Your task to perform on an android device: manage bookmarks in the chrome app Image 0: 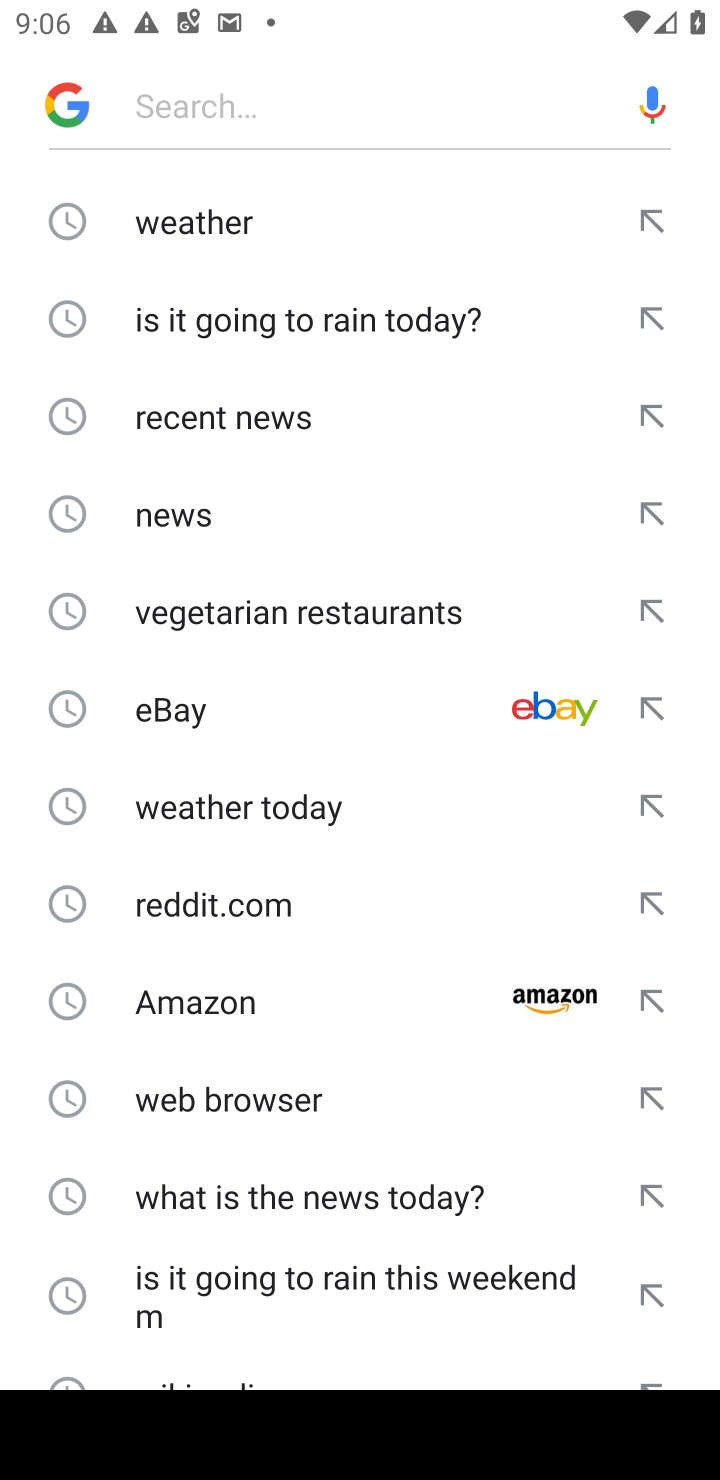
Step 0: press home button
Your task to perform on an android device: manage bookmarks in the chrome app Image 1: 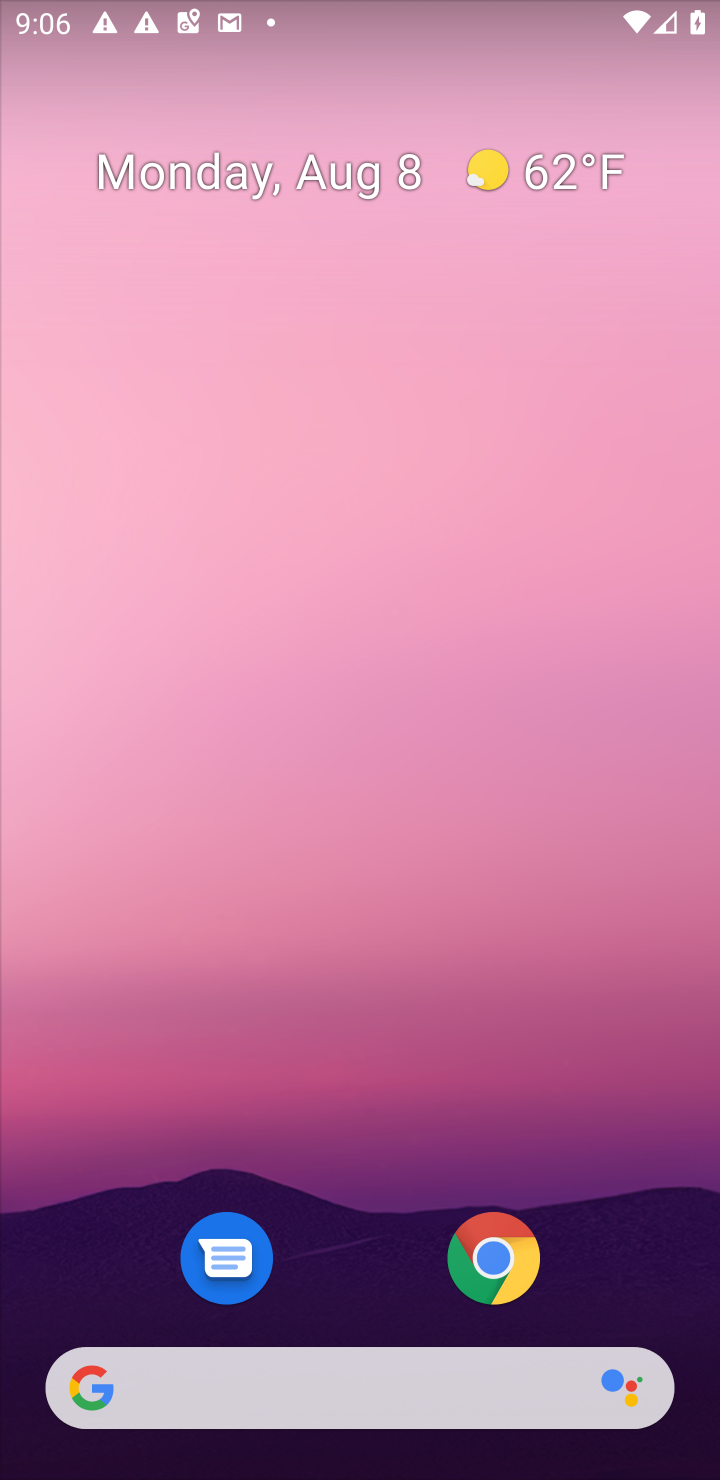
Step 1: drag from (392, 952) to (543, 127)
Your task to perform on an android device: manage bookmarks in the chrome app Image 2: 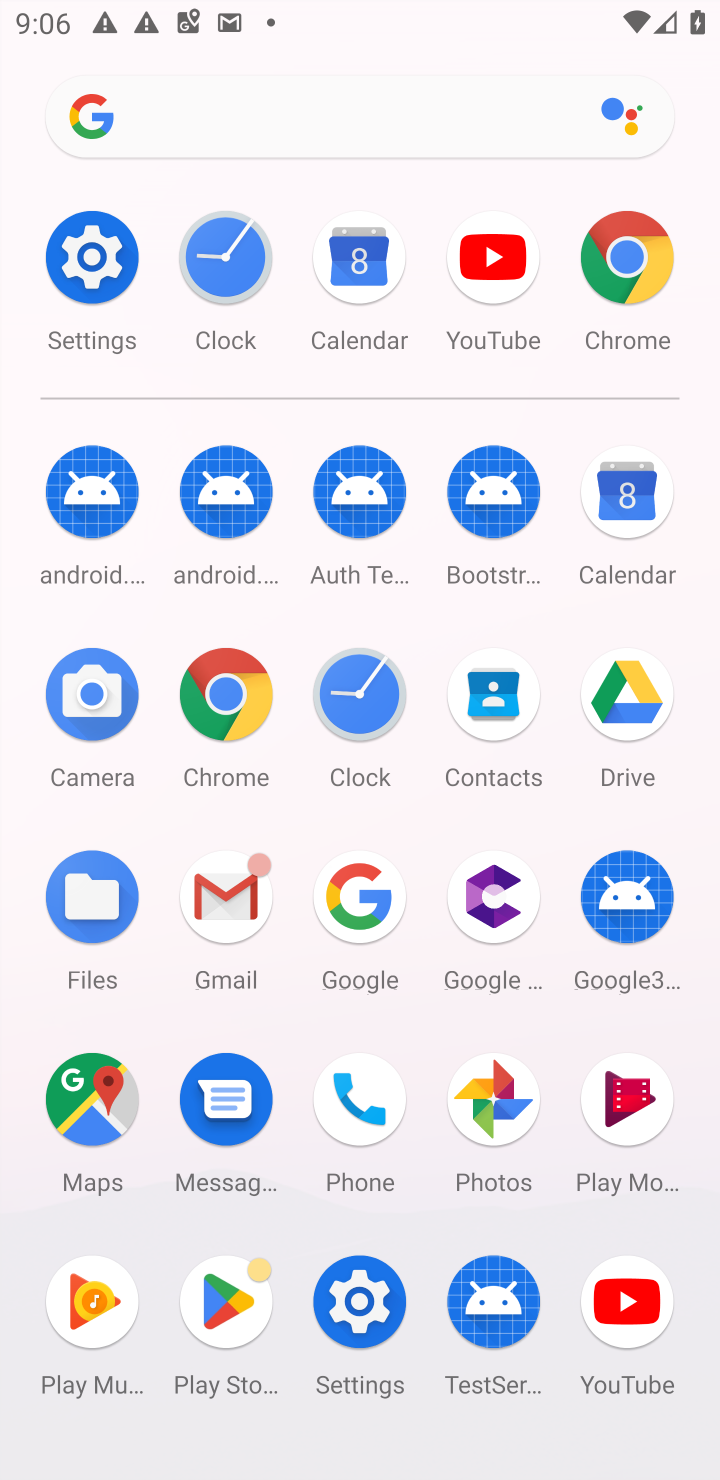
Step 2: click (238, 700)
Your task to perform on an android device: manage bookmarks in the chrome app Image 3: 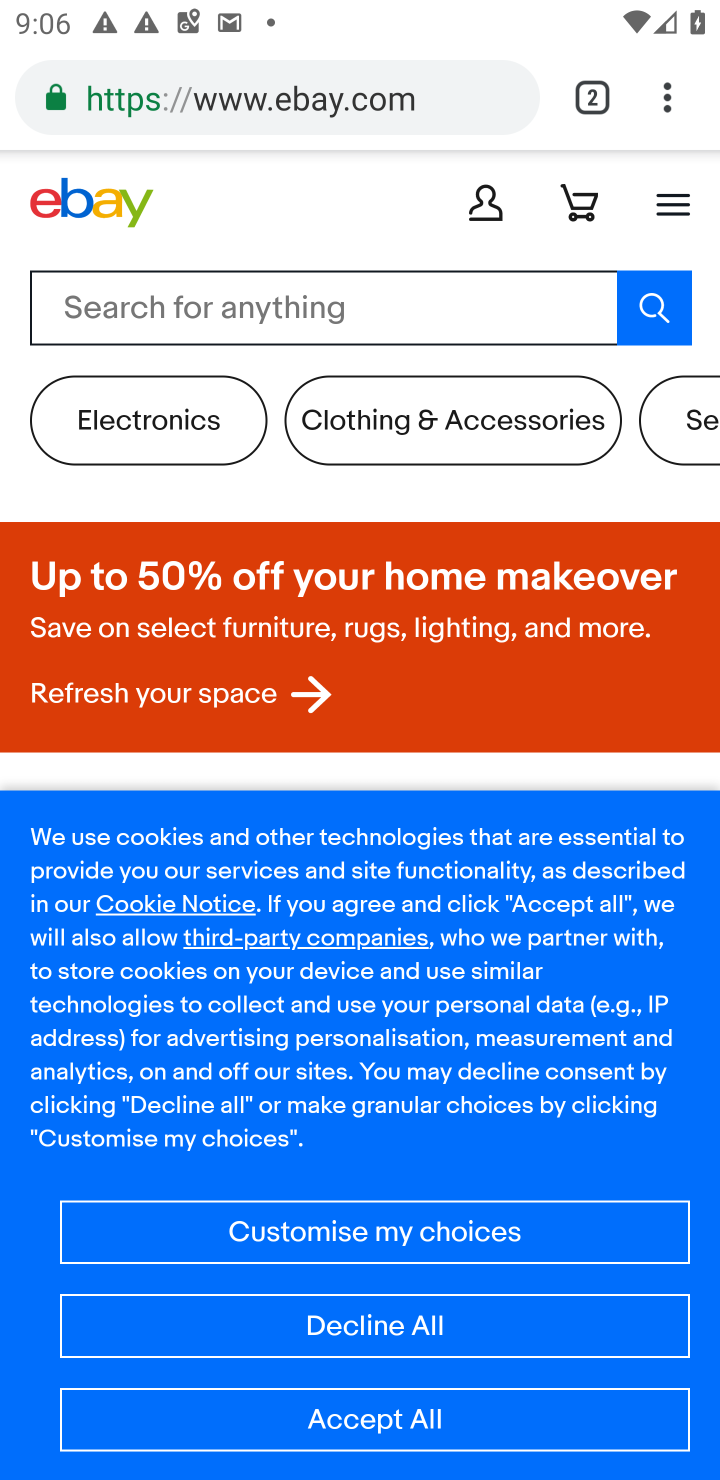
Step 3: click (677, 91)
Your task to perform on an android device: manage bookmarks in the chrome app Image 4: 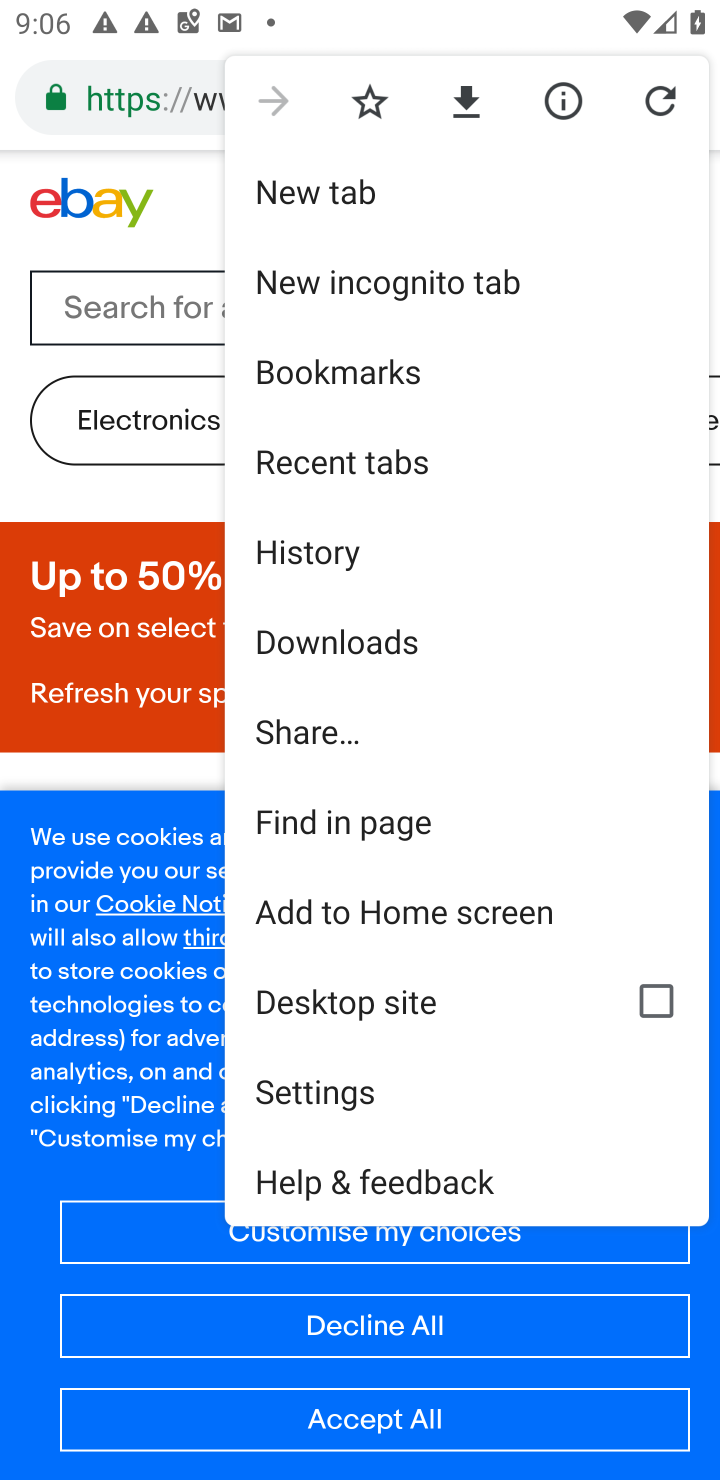
Step 4: click (328, 375)
Your task to perform on an android device: manage bookmarks in the chrome app Image 5: 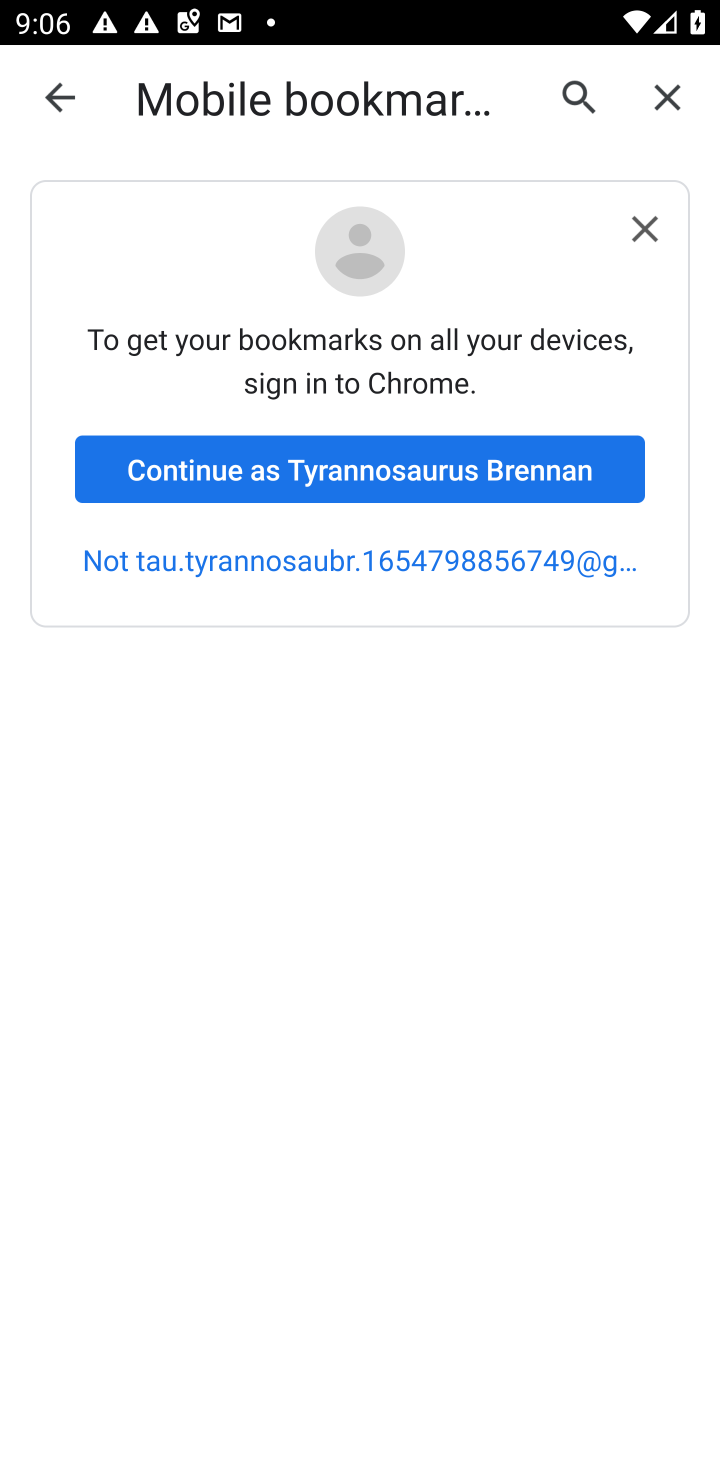
Step 5: task complete